Your task to perform on an android device: set the stopwatch Image 0: 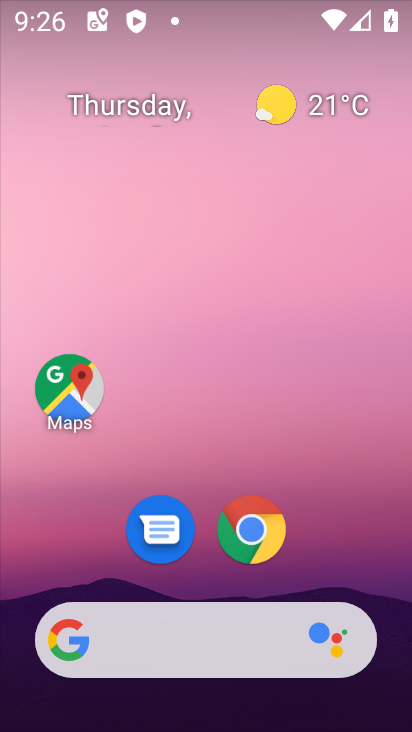
Step 0: drag from (187, 716) to (407, 352)
Your task to perform on an android device: set the stopwatch Image 1: 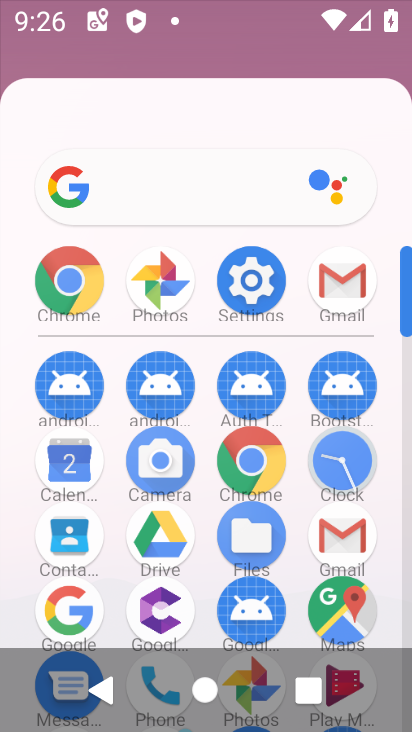
Step 1: click (332, 382)
Your task to perform on an android device: set the stopwatch Image 2: 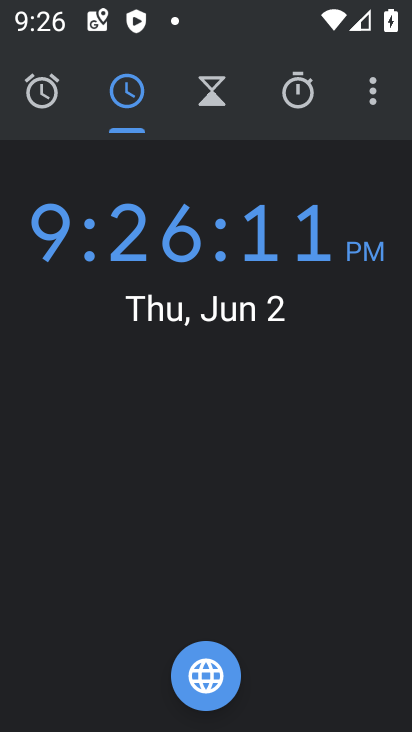
Step 2: click (309, 95)
Your task to perform on an android device: set the stopwatch Image 3: 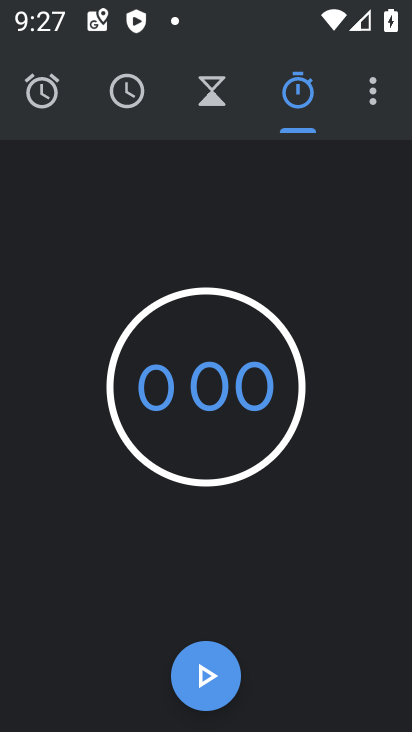
Step 3: task complete